Your task to perform on an android device: toggle improve location accuracy Image 0: 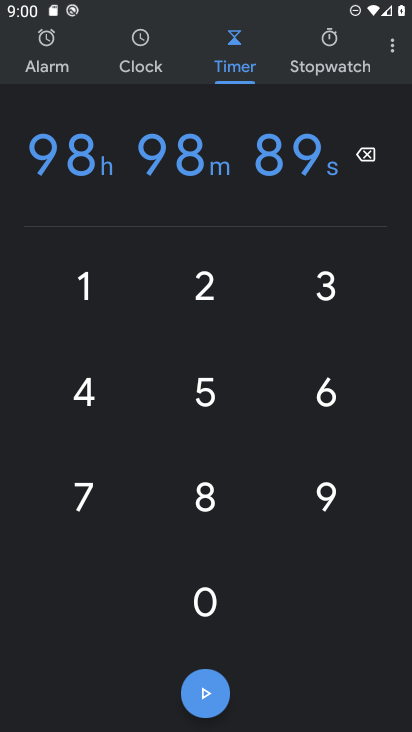
Step 0: press home button
Your task to perform on an android device: toggle improve location accuracy Image 1: 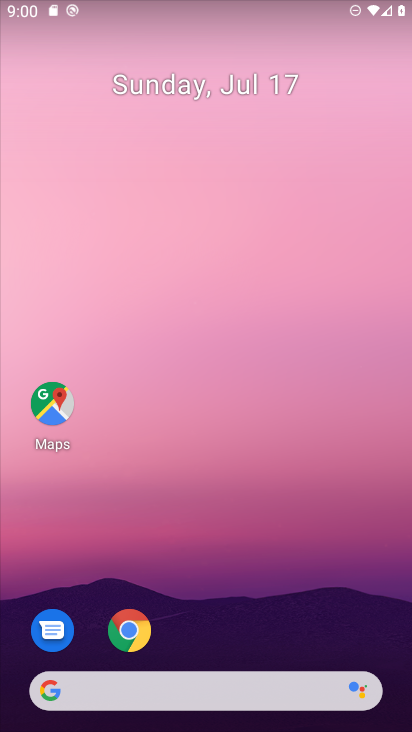
Step 1: drag from (256, 579) to (255, 55)
Your task to perform on an android device: toggle improve location accuracy Image 2: 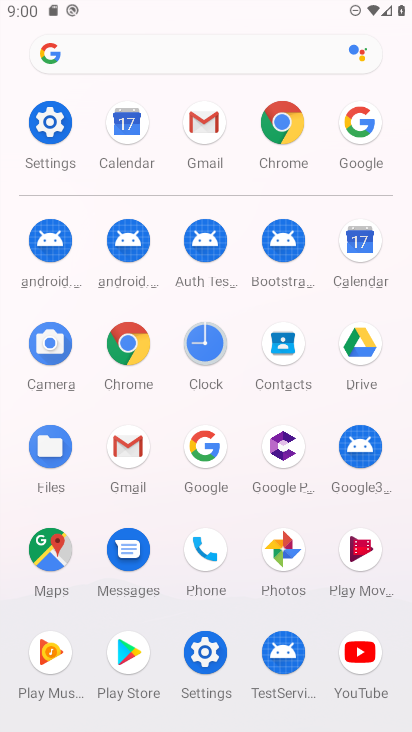
Step 2: click (48, 112)
Your task to perform on an android device: toggle improve location accuracy Image 3: 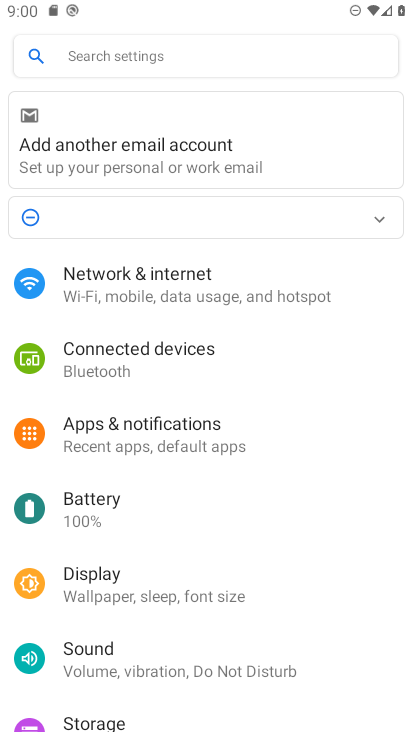
Step 3: drag from (235, 639) to (261, 210)
Your task to perform on an android device: toggle improve location accuracy Image 4: 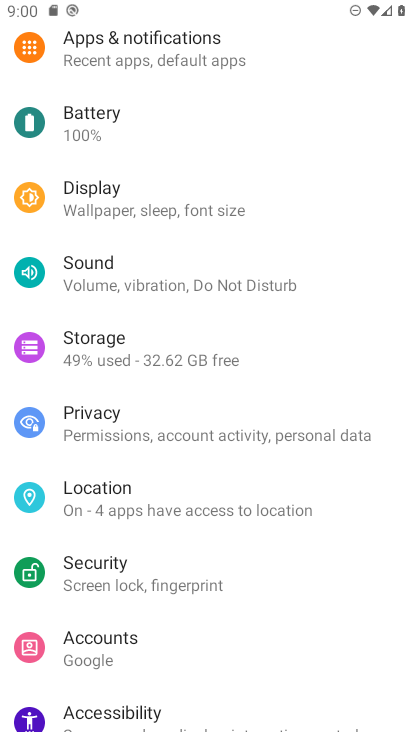
Step 4: click (130, 484)
Your task to perform on an android device: toggle improve location accuracy Image 5: 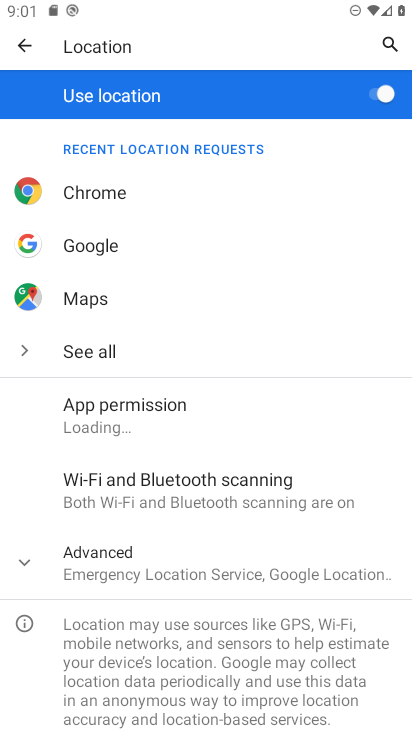
Step 5: click (198, 565)
Your task to perform on an android device: toggle improve location accuracy Image 6: 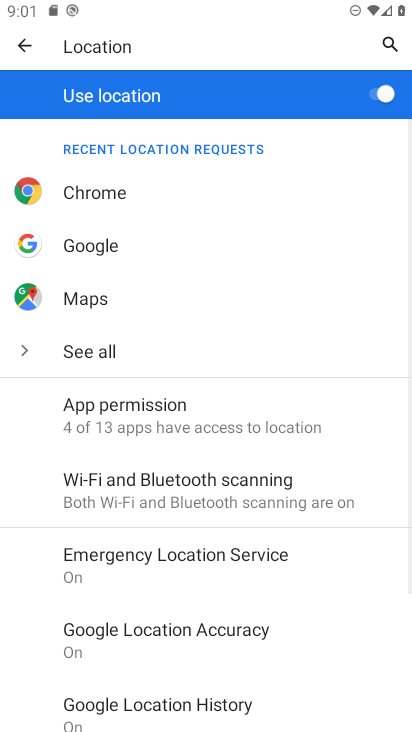
Step 6: drag from (238, 575) to (280, 147)
Your task to perform on an android device: toggle improve location accuracy Image 7: 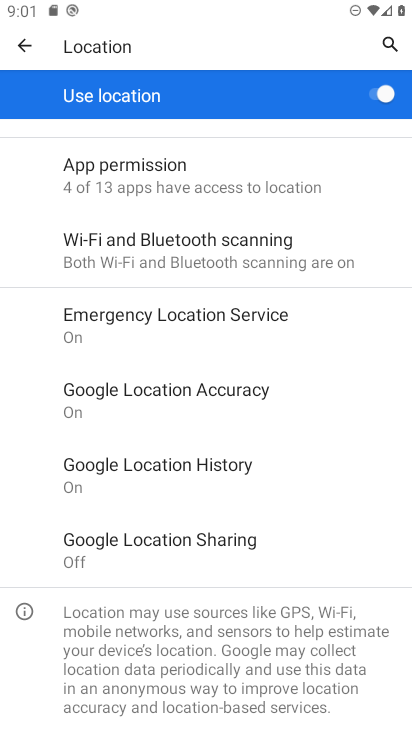
Step 7: click (156, 462)
Your task to perform on an android device: toggle improve location accuracy Image 8: 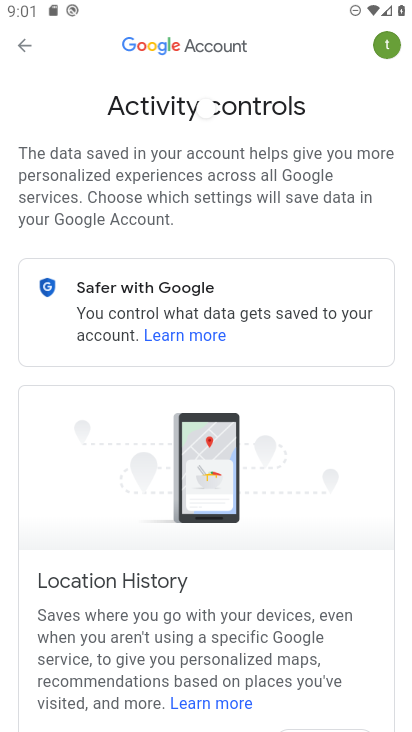
Step 8: drag from (199, 608) to (257, 125)
Your task to perform on an android device: toggle improve location accuracy Image 9: 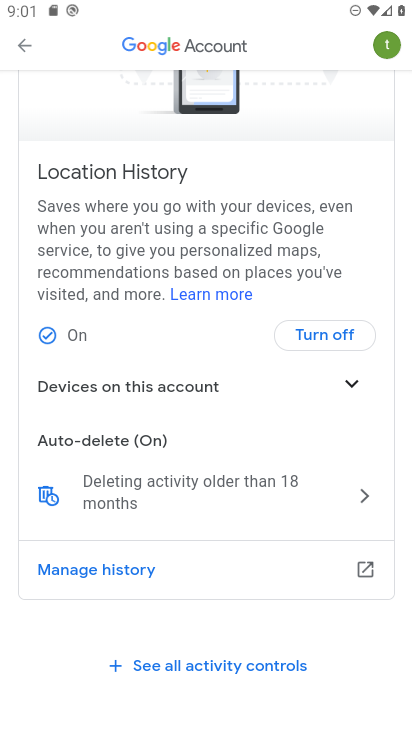
Step 9: click (23, 46)
Your task to perform on an android device: toggle improve location accuracy Image 10: 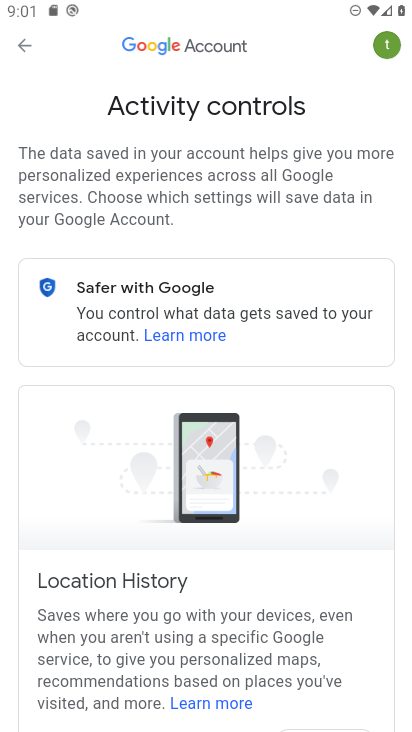
Step 10: drag from (231, 599) to (256, 111)
Your task to perform on an android device: toggle improve location accuracy Image 11: 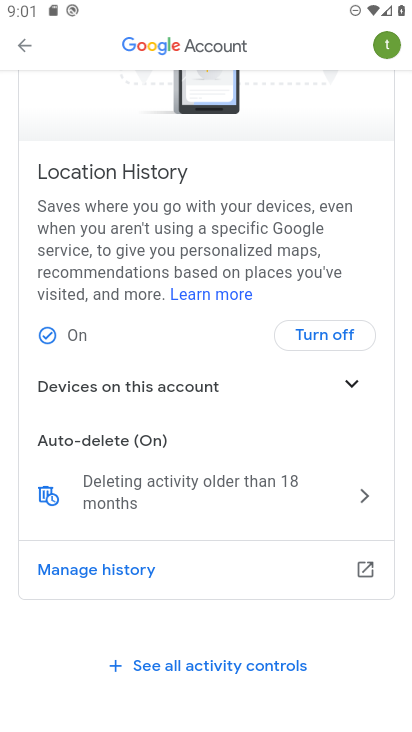
Step 11: click (28, 46)
Your task to perform on an android device: toggle improve location accuracy Image 12: 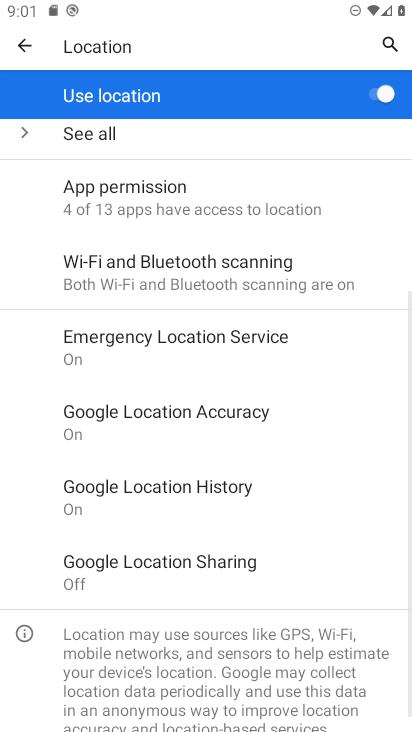
Step 12: click (224, 418)
Your task to perform on an android device: toggle improve location accuracy Image 13: 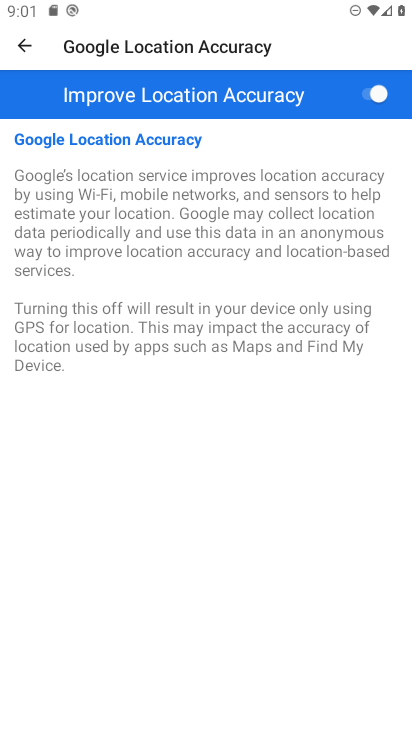
Step 13: click (370, 90)
Your task to perform on an android device: toggle improve location accuracy Image 14: 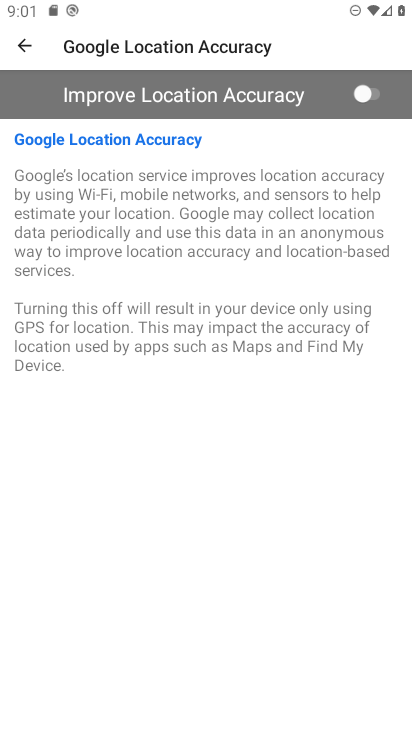
Step 14: task complete